Your task to perform on an android device: check data usage Image 0: 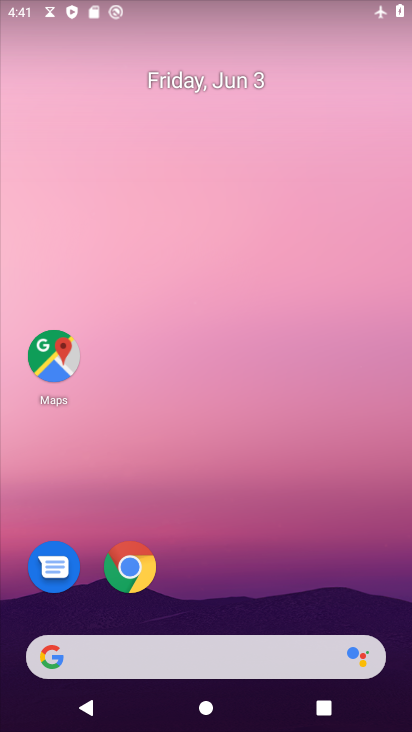
Step 0: drag from (261, 580) to (265, 33)
Your task to perform on an android device: check data usage Image 1: 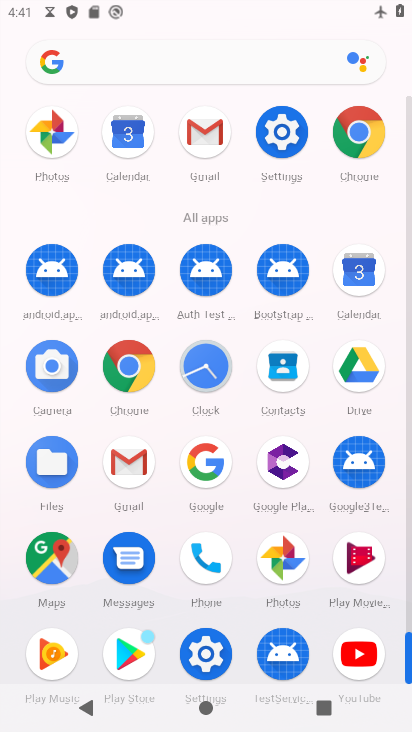
Step 1: click (281, 129)
Your task to perform on an android device: check data usage Image 2: 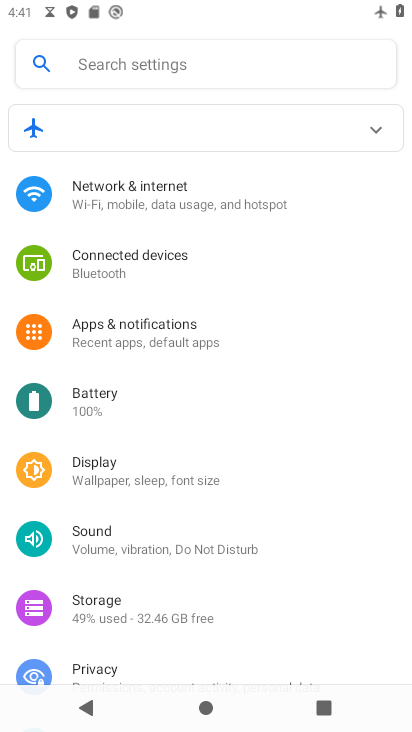
Step 2: click (148, 203)
Your task to perform on an android device: check data usage Image 3: 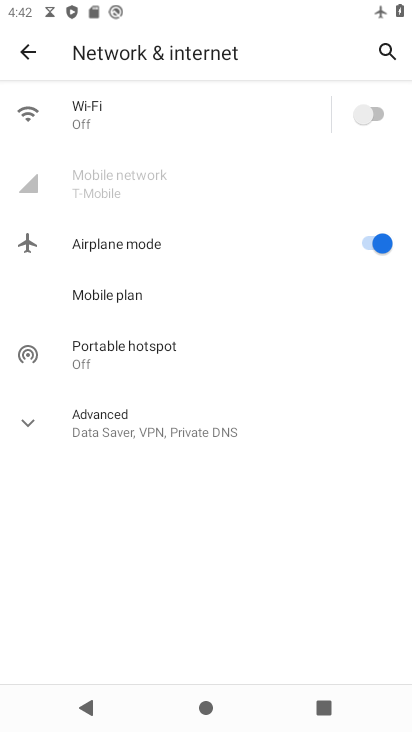
Step 3: click (129, 188)
Your task to perform on an android device: check data usage Image 4: 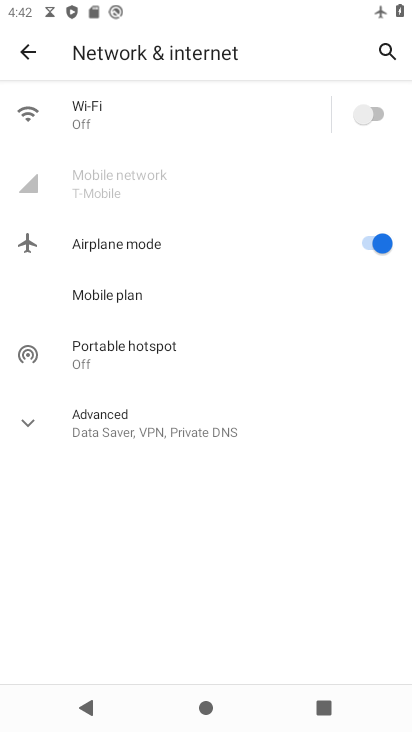
Step 4: task complete